Your task to perform on an android device: Open internet settings Image 0: 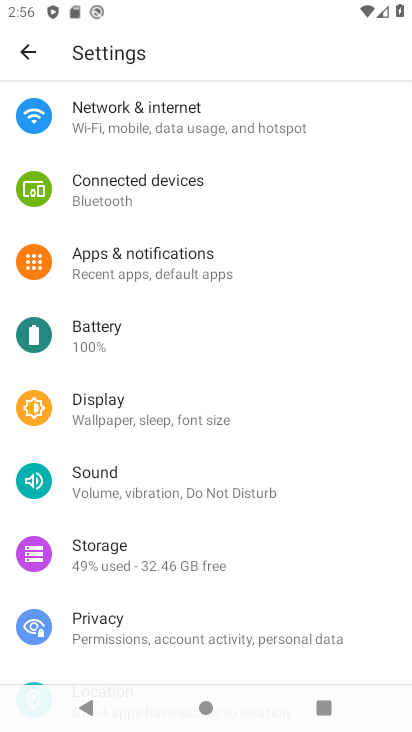
Step 0: press home button
Your task to perform on an android device: Open internet settings Image 1: 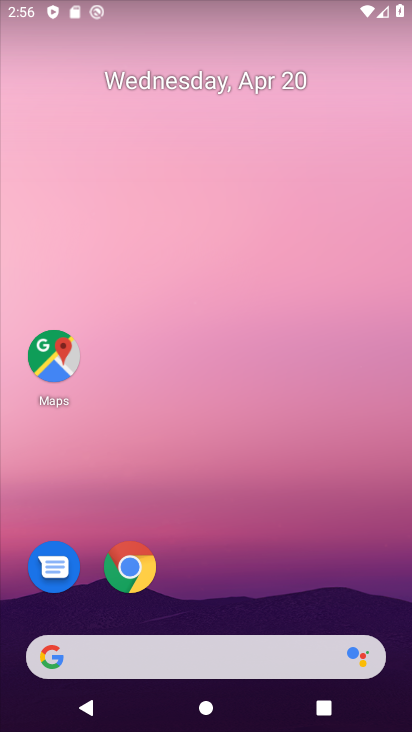
Step 1: drag from (226, 575) to (229, 48)
Your task to perform on an android device: Open internet settings Image 2: 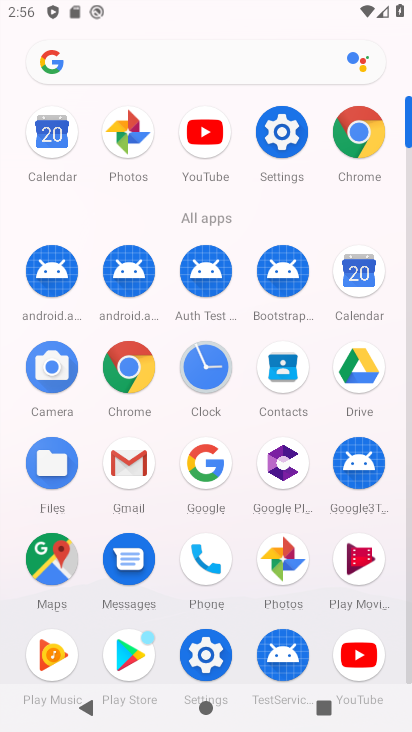
Step 2: click (286, 152)
Your task to perform on an android device: Open internet settings Image 3: 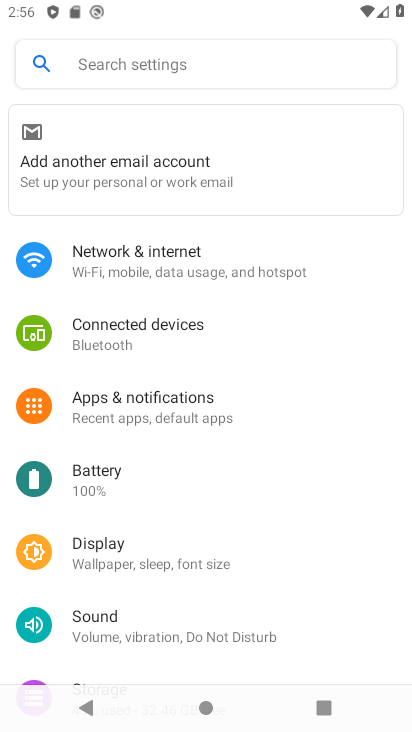
Step 3: click (230, 268)
Your task to perform on an android device: Open internet settings Image 4: 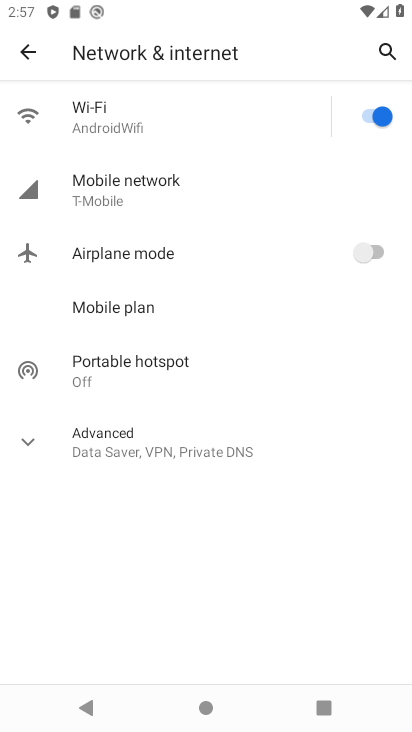
Step 4: task complete